Your task to perform on an android device: Go to Yahoo.com Image 0: 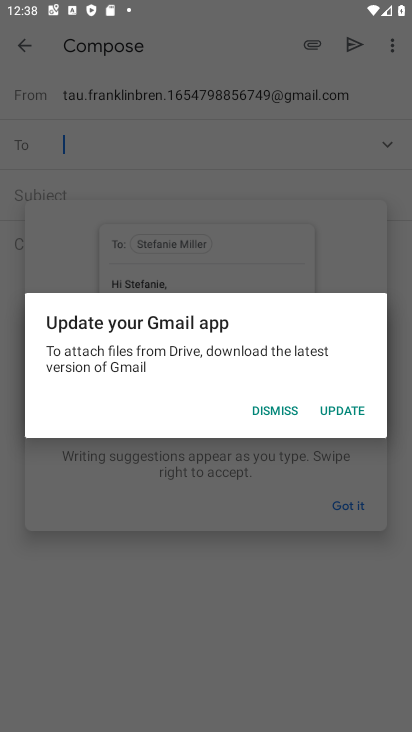
Step 0: press home button
Your task to perform on an android device: Go to Yahoo.com Image 1: 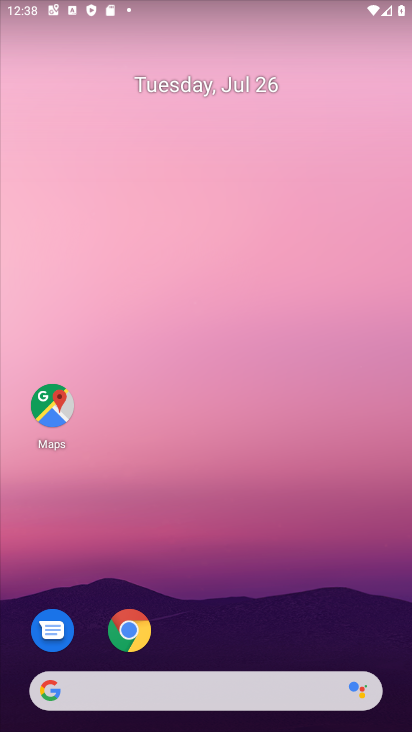
Step 1: click (130, 630)
Your task to perform on an android device: Go to Yahoo.com Image 2: 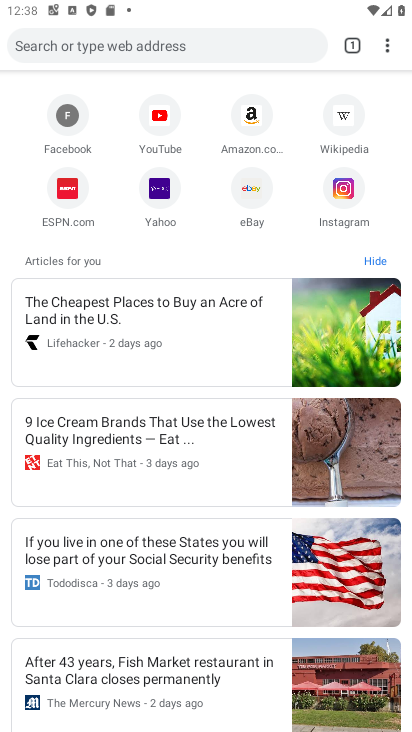
Step 2: click (92, 50)
Your task to perform on an android device: Go to Yahoo.com Image 3: 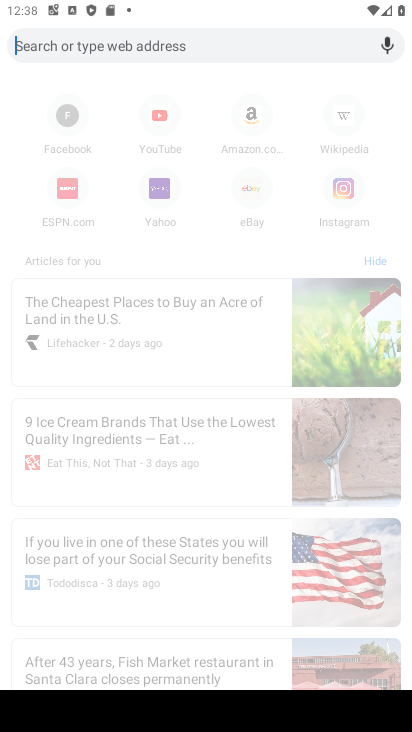
Step 3: type "yahoo.com"
Your task to perform on an android device: Go to Yahoo.com Image 4: 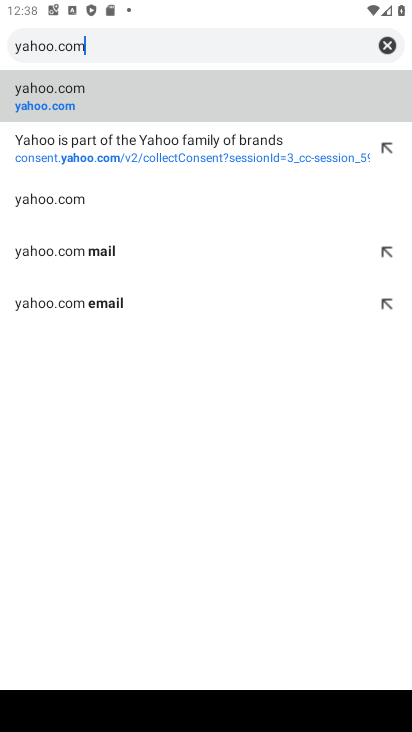
Step 4: click (69, 92)
Your task to perform on an android device: Go to Yahoo.com Image 5: 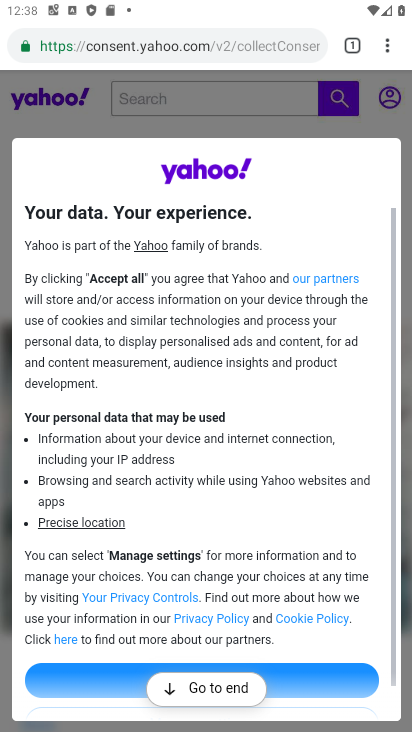
Step 5: click (190, 697)
Your task to perform on an android device: Go to Yahoo.com Image 6: 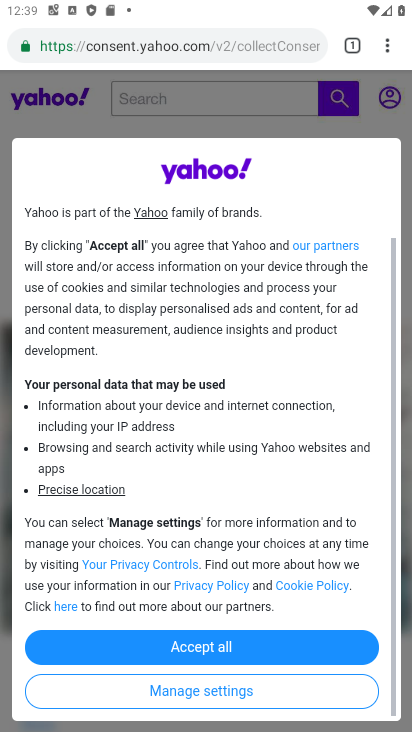
Step 6: click (207, 652)
Your task to perform on an android device: Go to Yahoo.com Image 7: 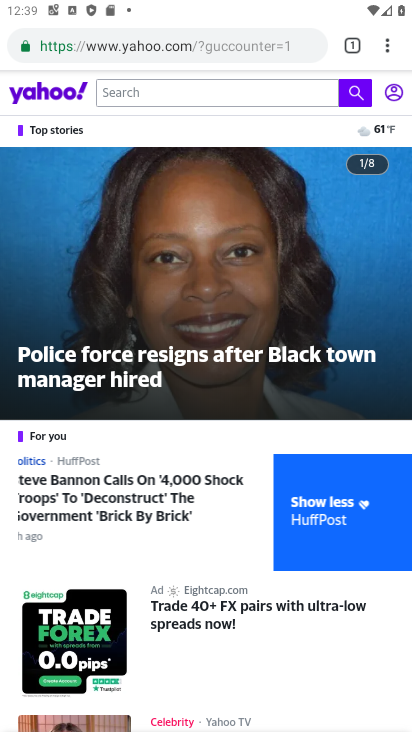
Step 7: task complete